Your task to perform on an android device: Open calendar and show me the fourth week of next month Image 0: 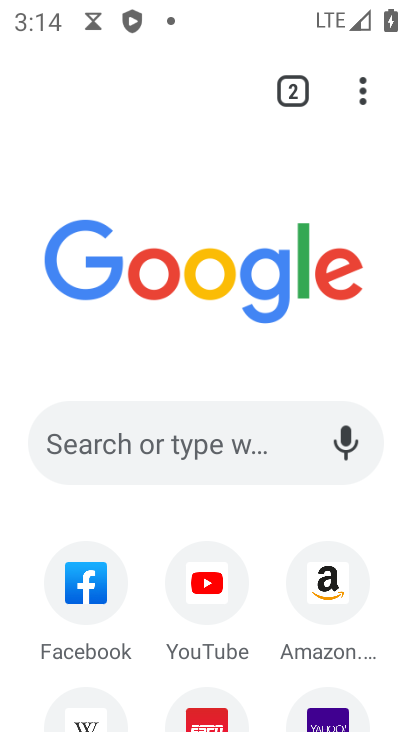
Step 0: press home button
Your task to perform on an android device: Open calendar and show me the fourth week of next month Image 1: 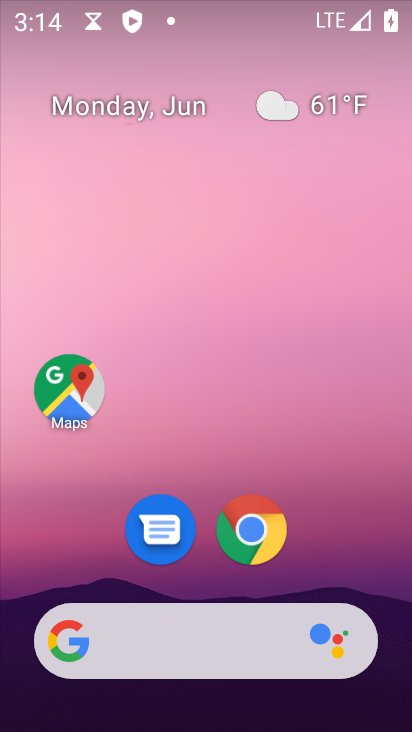
Step 1: drag from (344, 679) to (169, 13)
Your task to perform on an android device: Open calendar and show me the fourth week of next month Image 2: 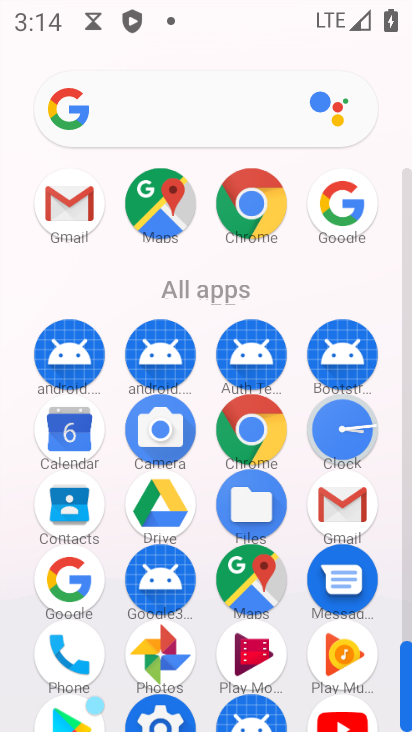
Step 2: click (67, 431)
Your task to perform on an android device: Open calendar and show me the fourth week of next month Image 3: 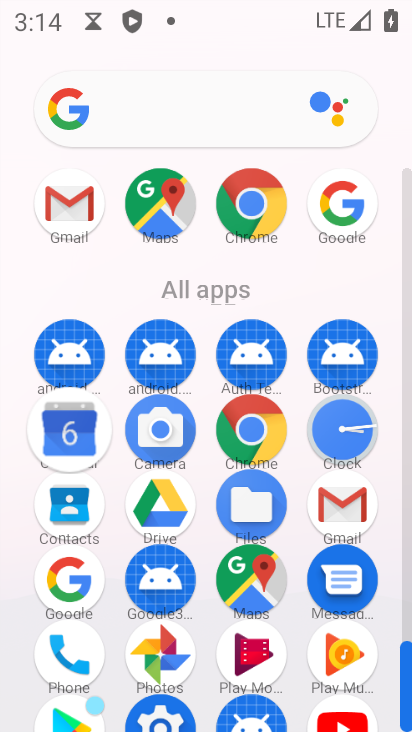
Step 3: click (67, 431)
Your task to perform on an android device: Open calendar and show me the fourth week of next month Image 4: 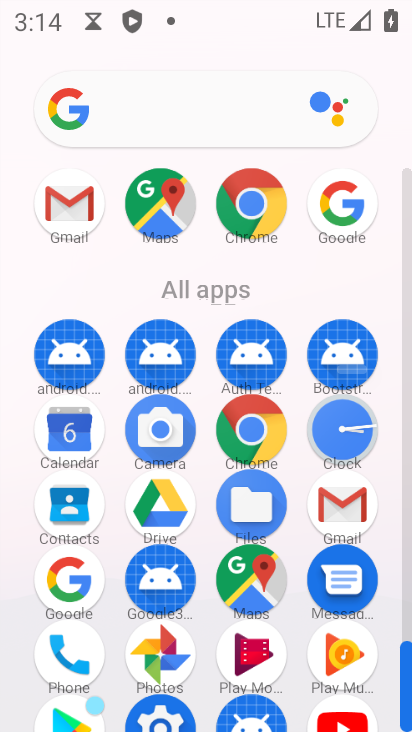
Step 4: click (67, 430)
Your task to perform on an android device: Open calendar and show me the fourth week of next month Image 5: 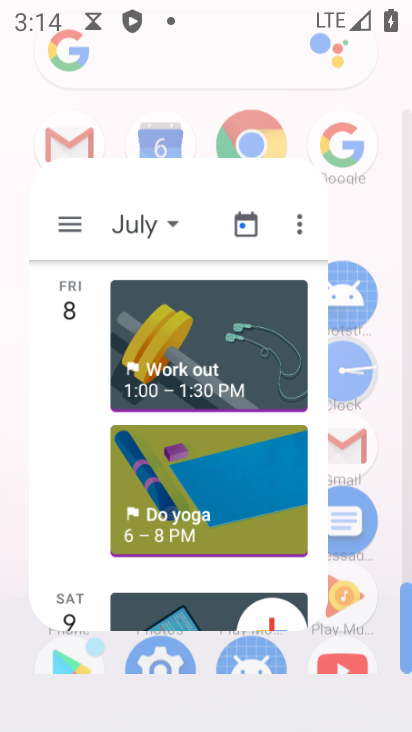
Step 5: click (70, 428)
Your task to perform on an android device: Open calendar and show me the fourth week of next month Image 6: 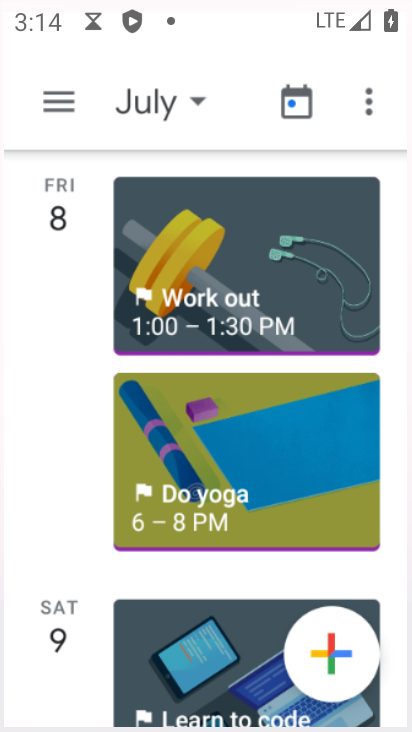
Step 6: click (69, 427)
Your task to perform on an android device: Open calendar and show me the fourth week of next month Image 7: 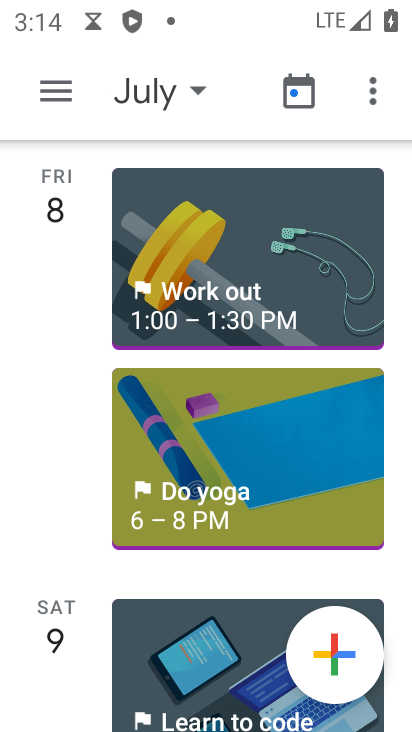
Step 7: click (67, 427)
Your task to perform on an android device: Open calendar and show me the fourth week of next month Image 8: 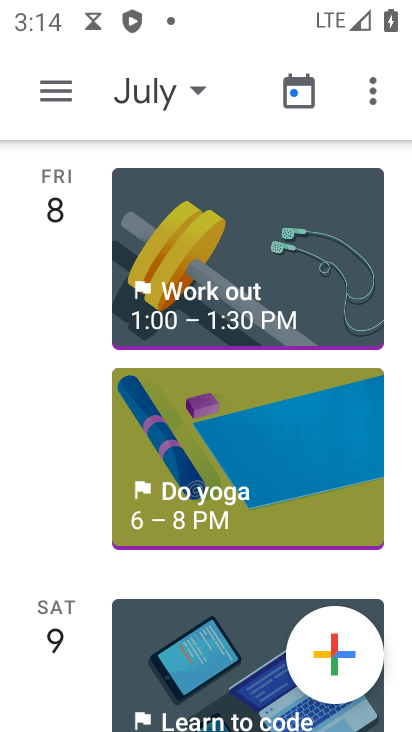
Step 8: click (196, 85)
Your task to perform on an android device: Open calendar and show me the fourth week of next month Image 9: 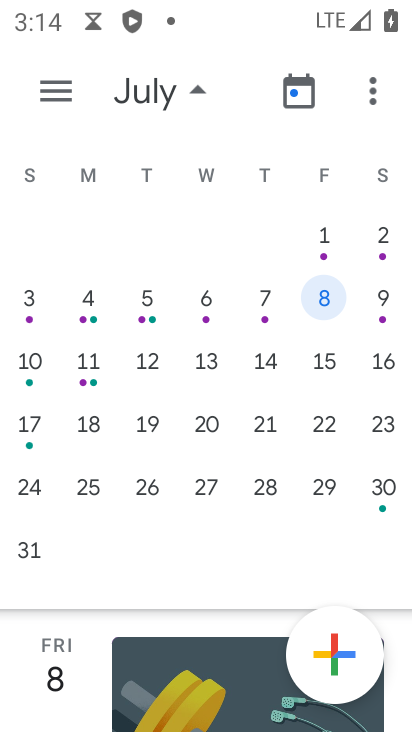
Step 9: click (329, 431)
Your task to perform on an android device: Open calendar and show me the fourth week of next month Image 10: 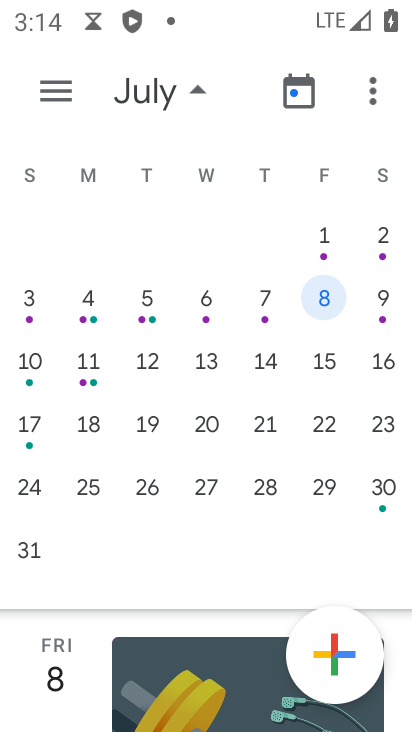
Step 10: click (330, 430)
Your task to perform on an android device: Open calendar and show me the fourth week of next month Image 11: 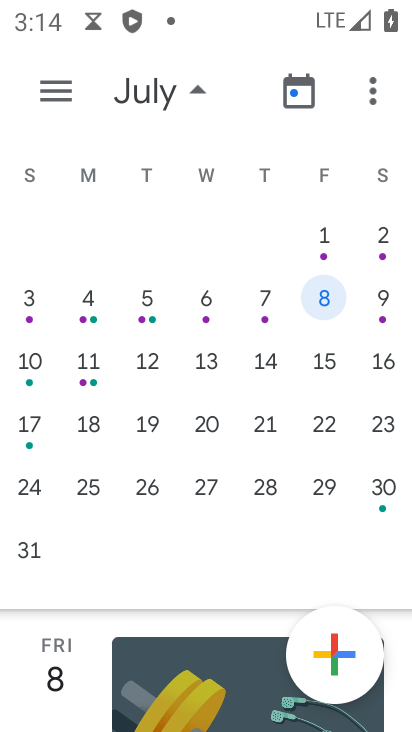
Step 11: click (331, 430)
Your task to perform on an android device: Open calendar and show me the fourth week of next month Image 12: 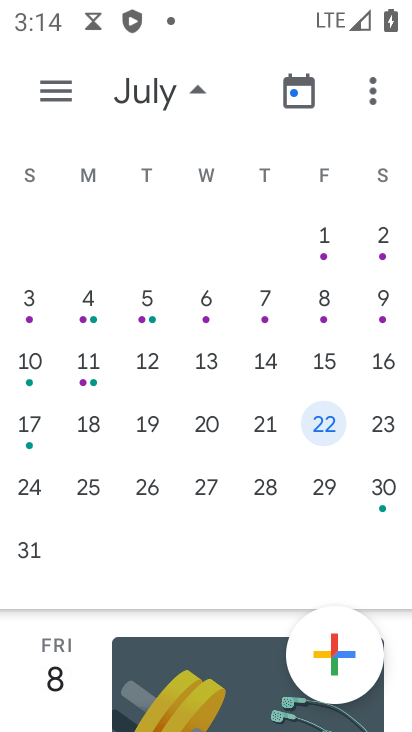
Step 12: click (332, 427)
Your task to perform on an android device: Open calendar and show me the fourth week of next month Image 13: 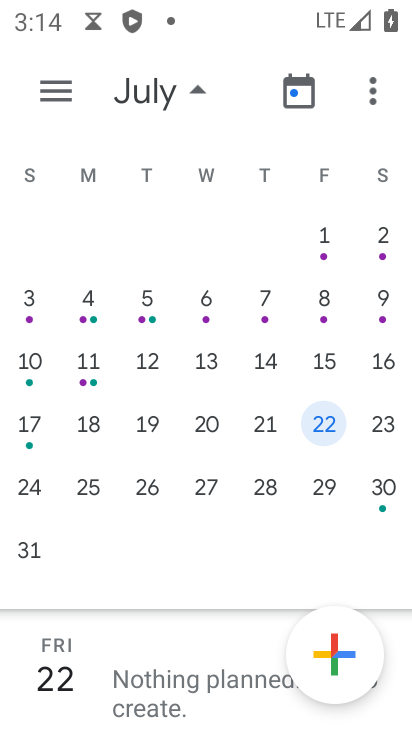
Step 13: click (325, 418)
Your task to perform on an android device: Open calendar and show me the fourth week of next month Image 14: 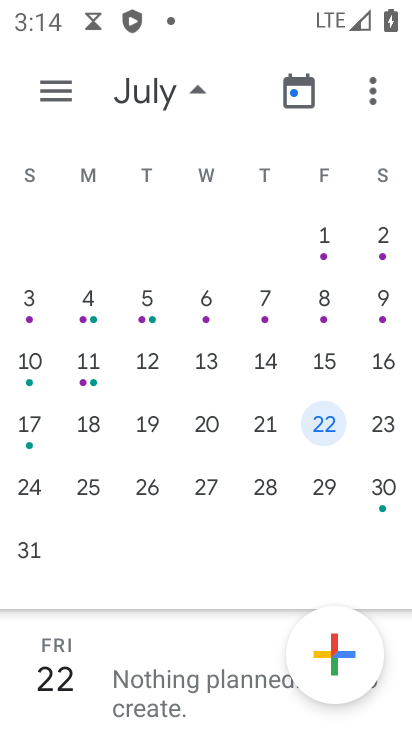
Step 14: task complete